Your task to perform on an android device: change alarm snooze length Image 0: 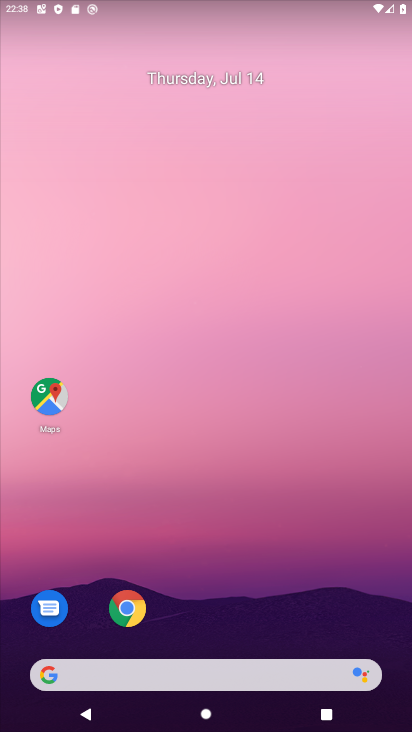
Step 0: drag from (188, 582) to (250, 94)
Your task to perform on an android device: change alarm snooze length Image 1: 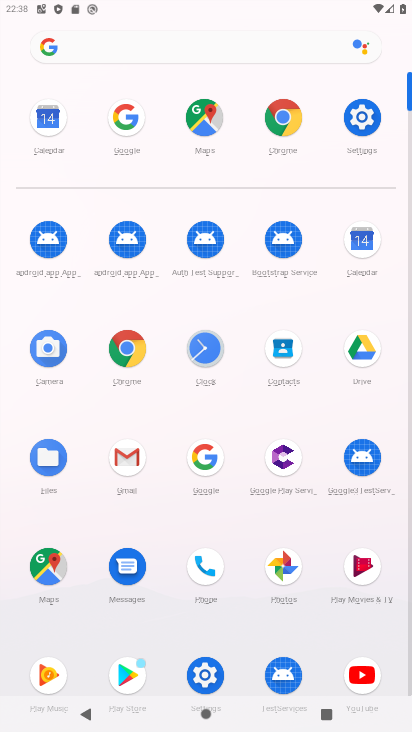
Step 1: click (204, 349)
Your task to perform on an android device: change alarm snooze length Image 2: 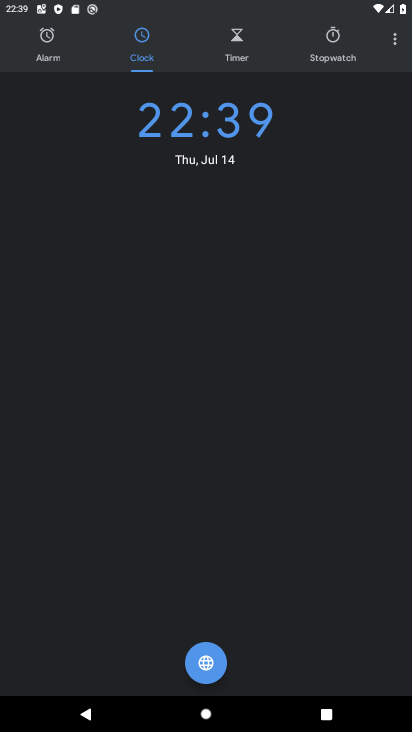
Step 2: click (401, 44)
Your task to perform on an android device: change alarm snooze length Image 3: 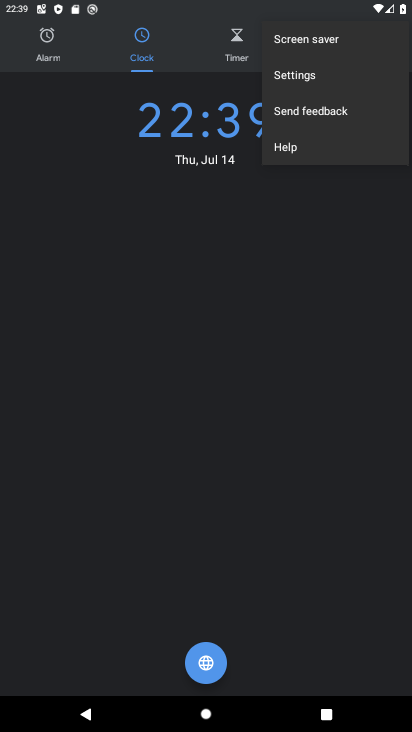
Step 3: click (310, 80)
Your task to perform on an android device: change alarm snooze length Image 4: 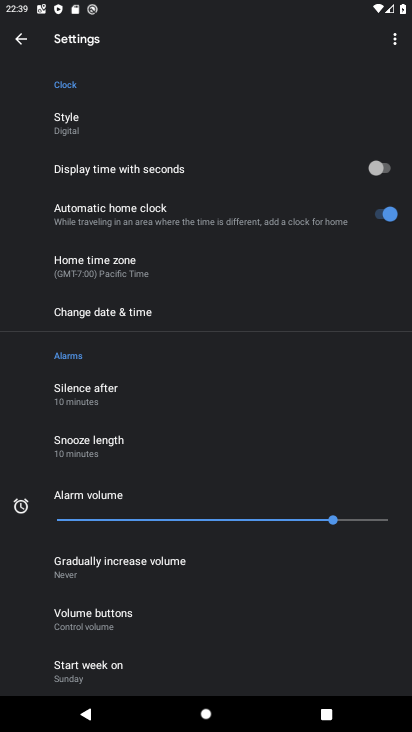
Step 4: click (91, 451)
Your task to perform on an android device: change alarm snooze length Image 5: 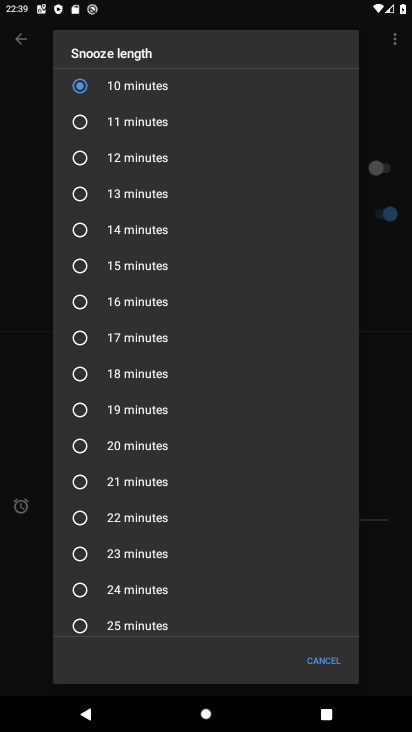
Step 5: click (93, 117)
Your task to perform on an android device: change alarm snooze length Image 6: 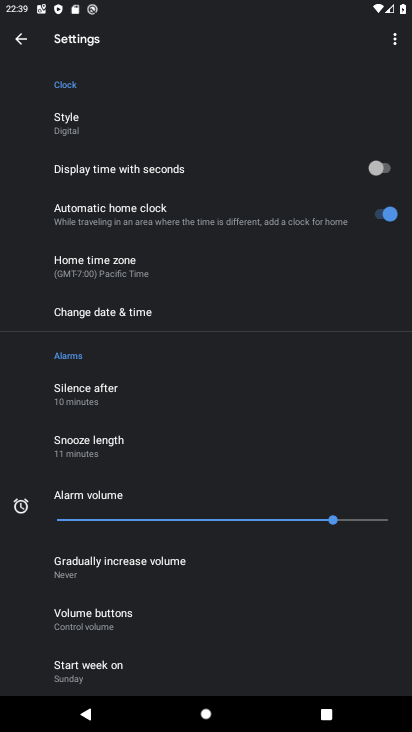
Step 6: task complete